Your task to perform on an android device: Go to Yahoo.com Image 0: 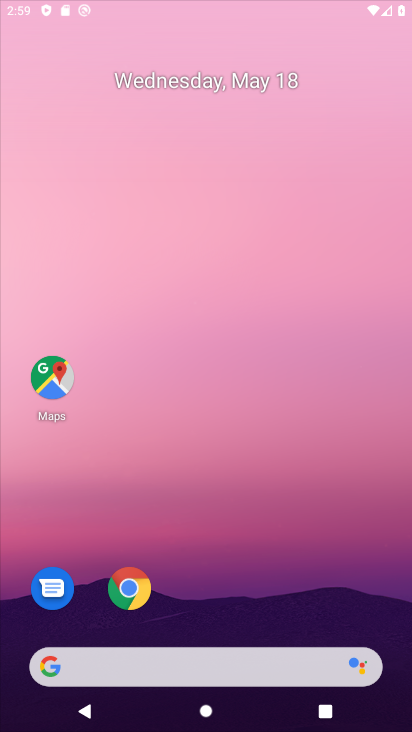
Step 0: press home button
Your task to perform on an android device: Go to Yahoo.com Image 1: 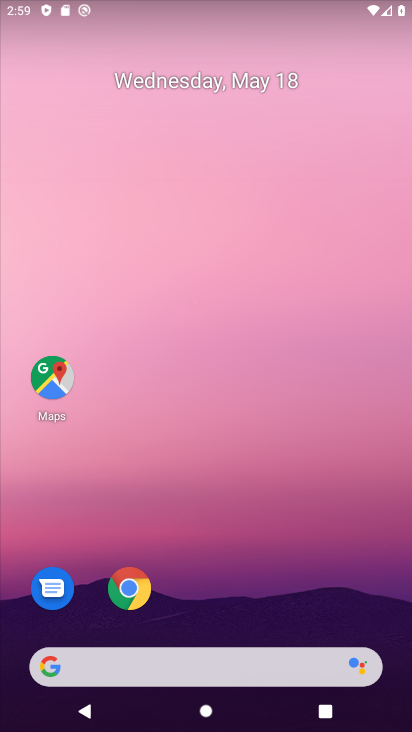
Step 1: click (209, 2)
Your task to perform on an android device: Go to Yahoo.com Image 2: 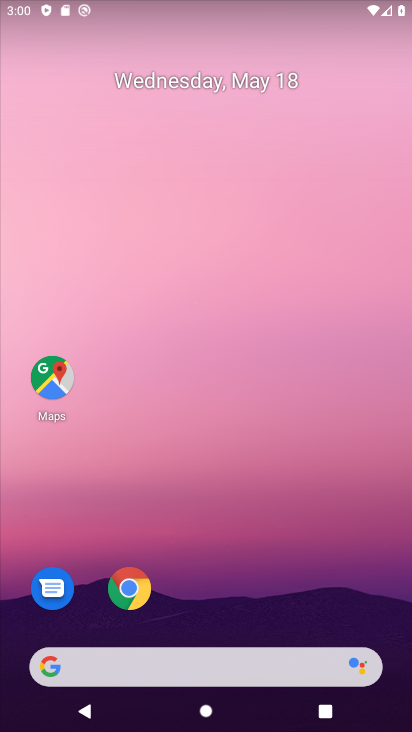
Step 2: click (113, 592)
Your task to perform on an android device: Go to Yahoo.com Image 3: 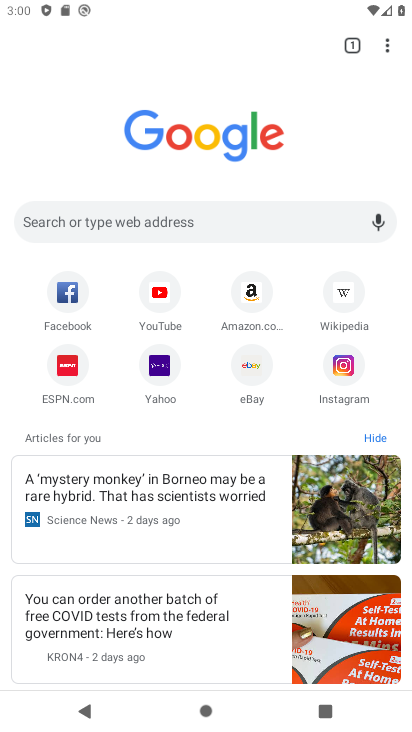
Step 3: click (297, 221)
Your task to perform on an android device: Go to Yahoo.com Image 4: 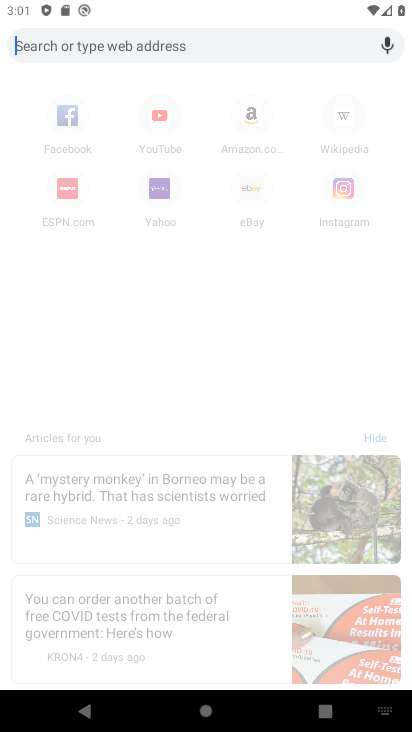
Step 4: type "Yahoo.com"
Your task to perform on an android device: Go to Yahoo.com Image 5: 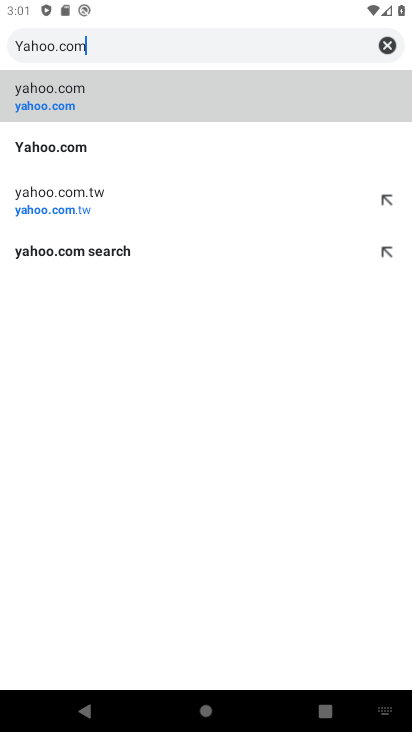
Step 5: click (108, 91)
Your task to perform on an android device: Go to Yahoo.com Image 6: 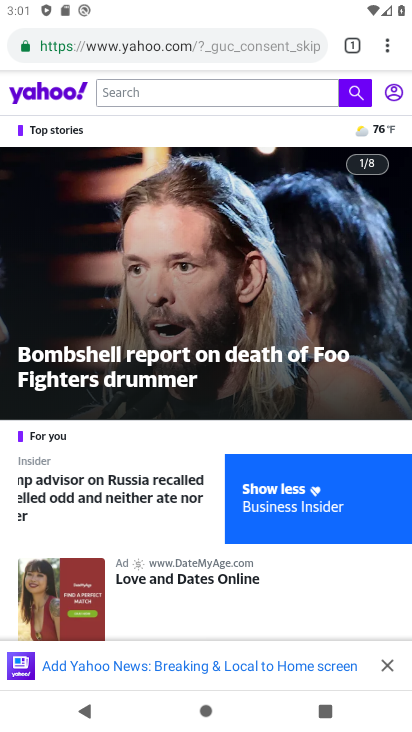
Step 6: task complete